Your task to perform on an android device: Open ESPN.com Image 0: 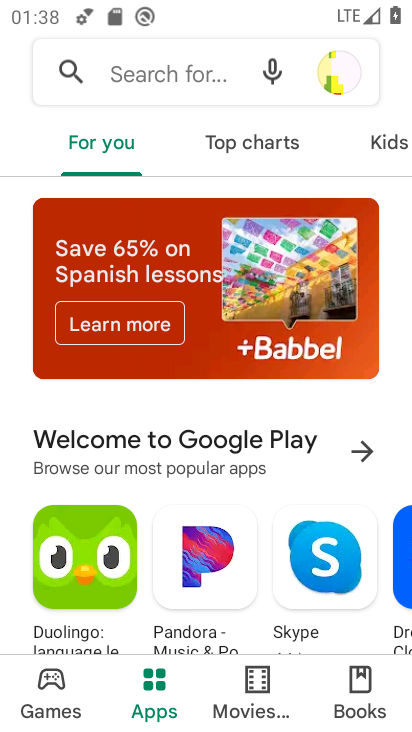
Step 0: press home button
Your task to perform on an android device: Open ESPN.com Image 1: 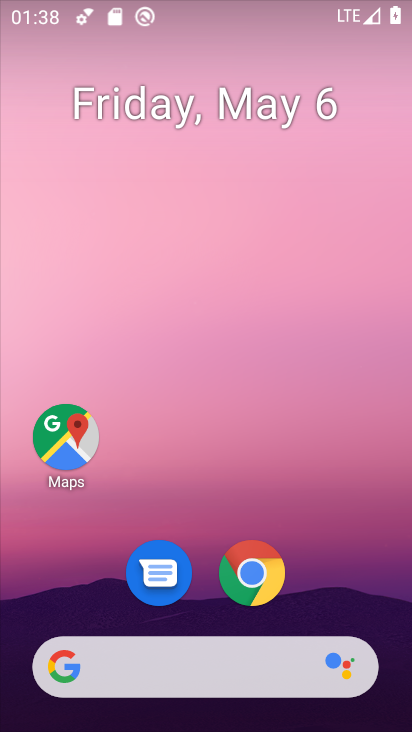
Step 1: drag from (319, 567) to (325, 274)
Your task to perform on an android device: Open ESPN.com Image 2: 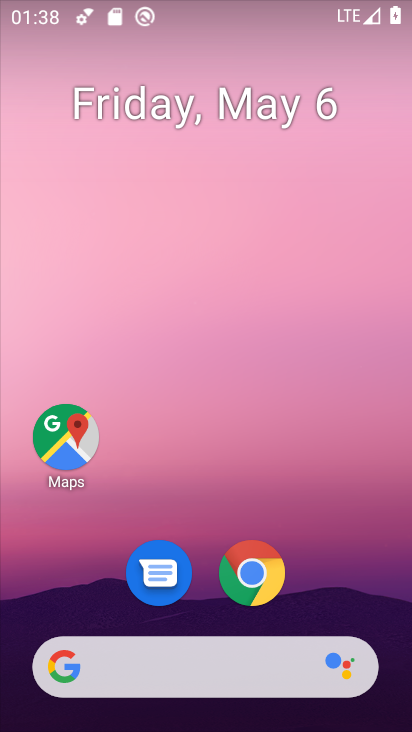
Step 2: drag from (291, 576) to (299, 204)
Your task to perform on an android device: Open ESPN.com Image 3: 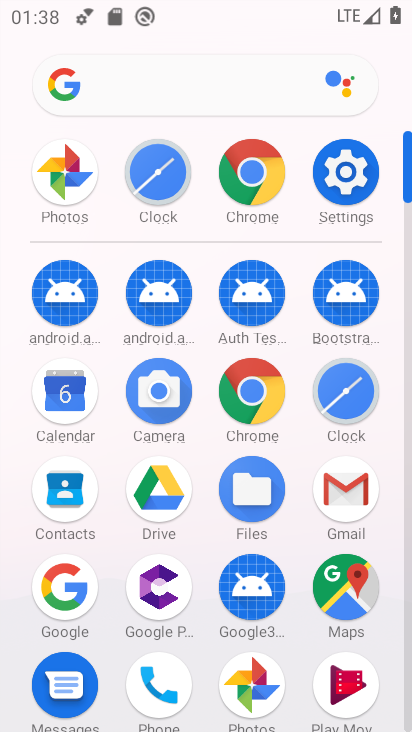
Step 3: click (257, 160)
Your task to perform on an android device: Open ESPN.com Image 4: 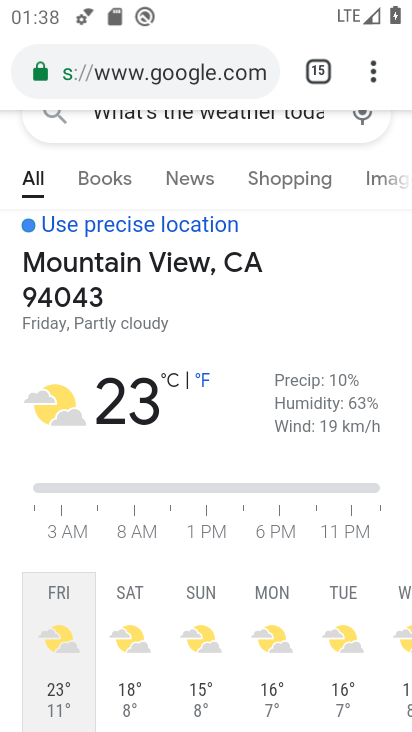
Step 4: click (352, 68)
Your task to perform on an android device: Open ESPN.com Image 5: 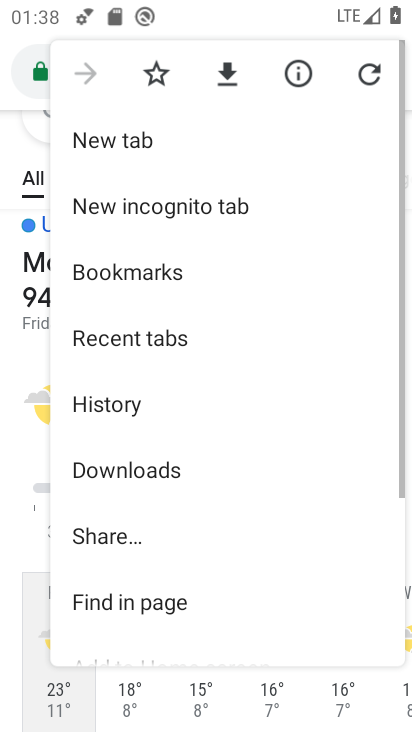
Step 5: click (176, 140)
Your task to perform on an android device: Open ESPN.com Image 6: 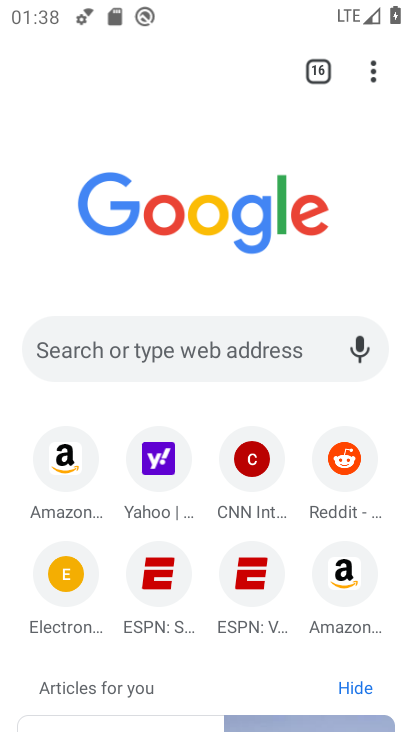
Step 6: click (131, 574)
Your task to perform on an android device: Open ESPN.com Image 7: 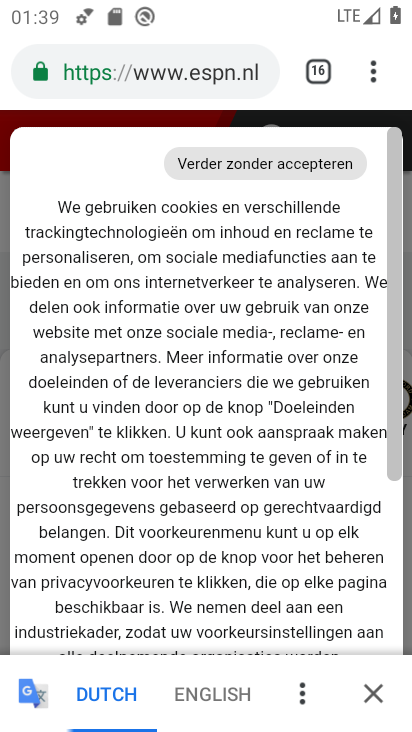
Step 7: task complete